Your task to perform on an android device: Open Chrome and go to settings Image 0: 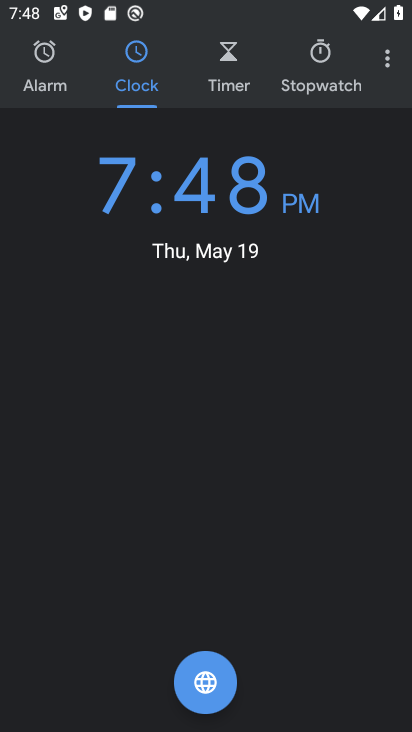
Step 0: press home button
Your task to perform on an android device: Open Chrome and go to settings Image 1: 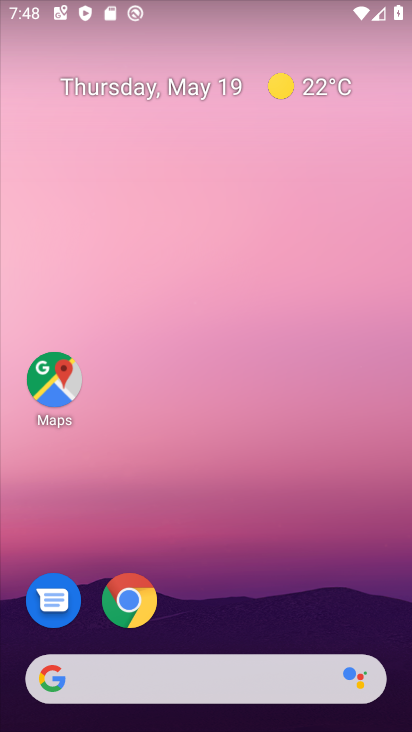
Step 1: drag from (307, 495) to (303, 64)
Your task to perform on an android device: Open Chrome and go to settings Image 2: 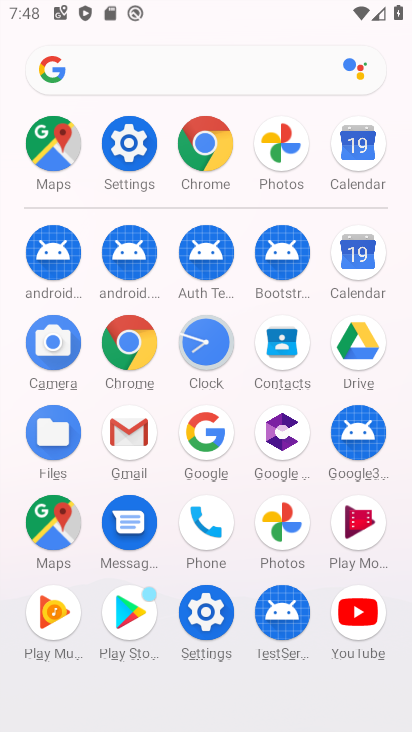
Step 2: click (129, 330)
Your task to perform on an android device: Open Chrome and go to settings Image 3: 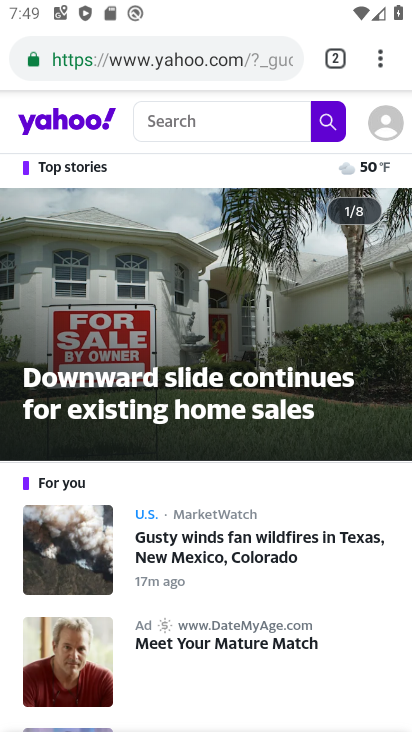
Step 3: task complete